Your task to perform on an android device: manage bookmarks in the chrome app Image 0: 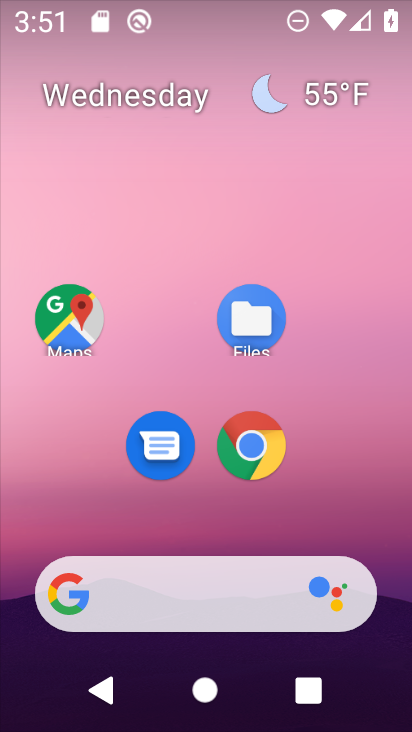
Step 0: click (262, 437)
Your task to perform on an android device: manage bookmarks in the chrome app Image 1: 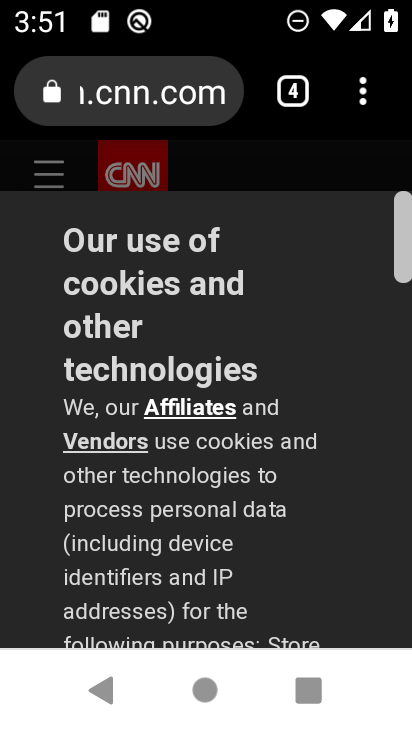
Step 1: click (355, 100)
Your task to perform on an android device: manage bookmarks in the chrome app Image 2: 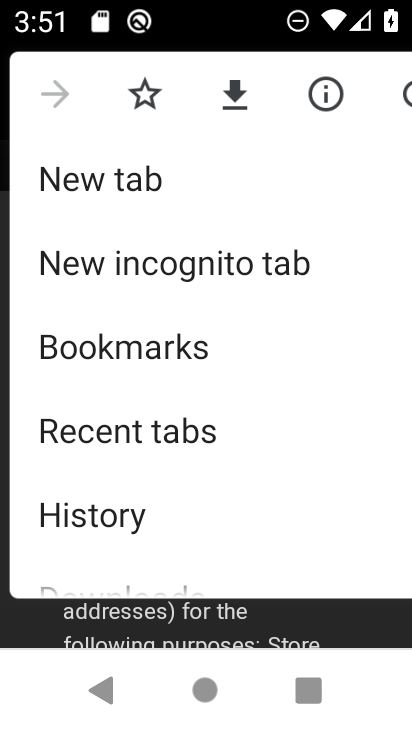
Step 2: click (229, 346)
Your task to perform on an android device: manage bookmarks in the chrome app Image 3: 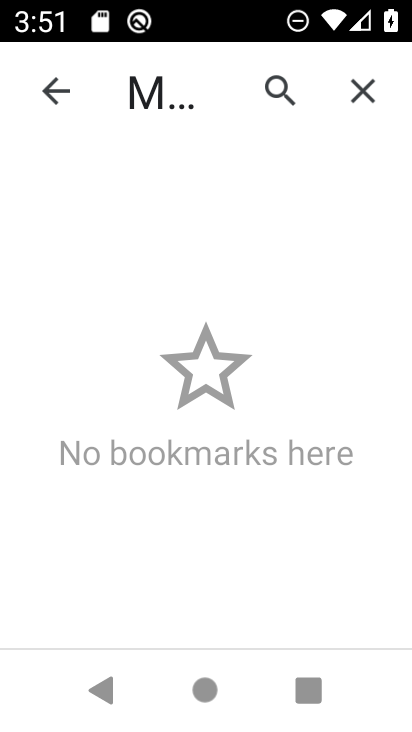
Step 3: task complete